Your task to perform on an android device: What's the price of the Vizio TV? Image 0: 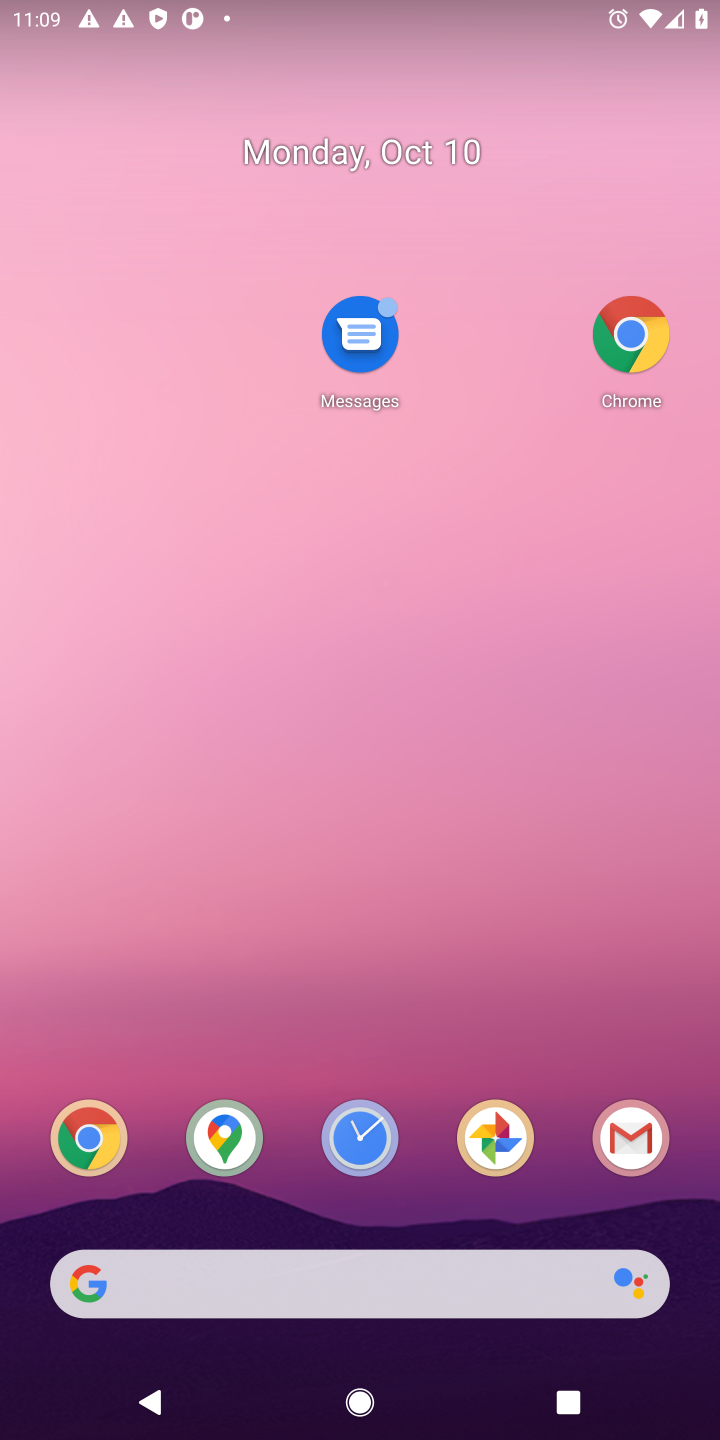
Step 0: click (636, 323)
Your task to perform on an android device: What's the price of the Vizio TV? Image 1: 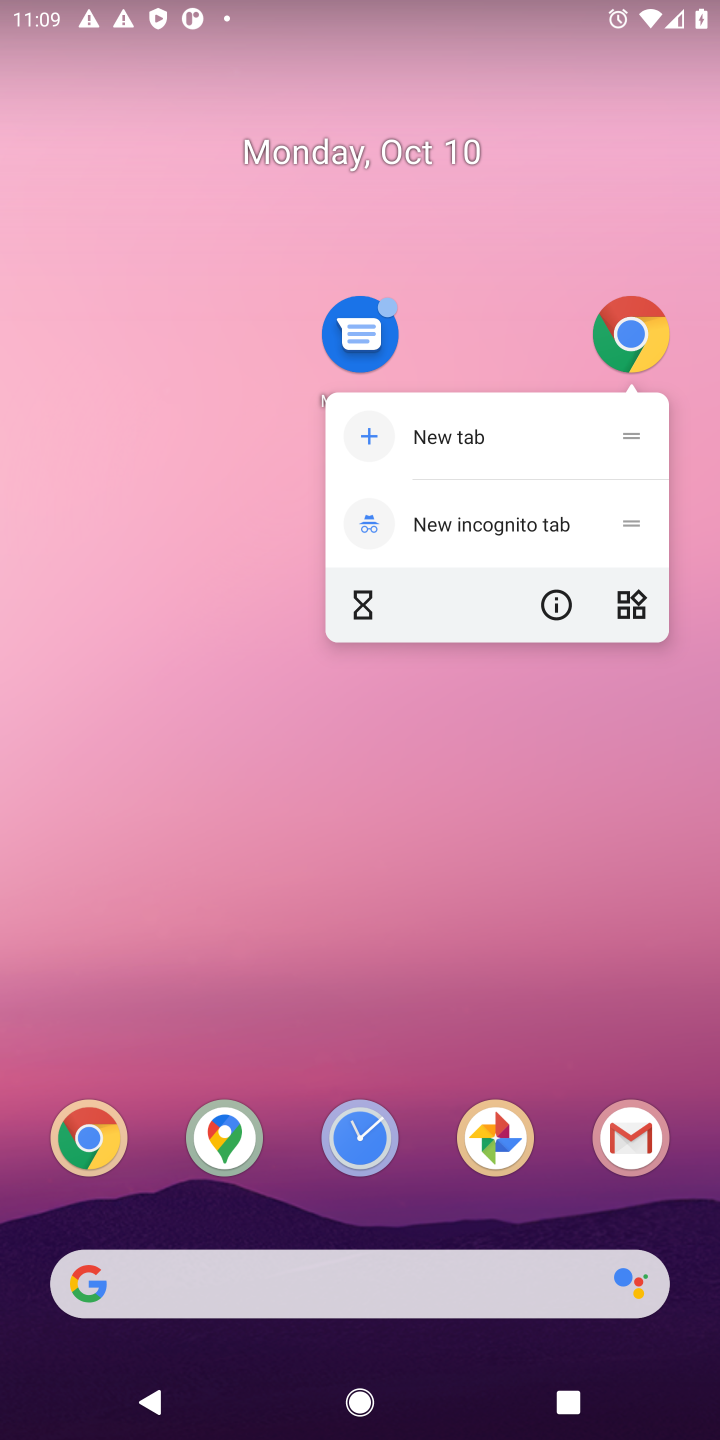
Step 1: click (634, 339)
Your task to perform on an android device: What's the price of the Vizio TV? Image 2: 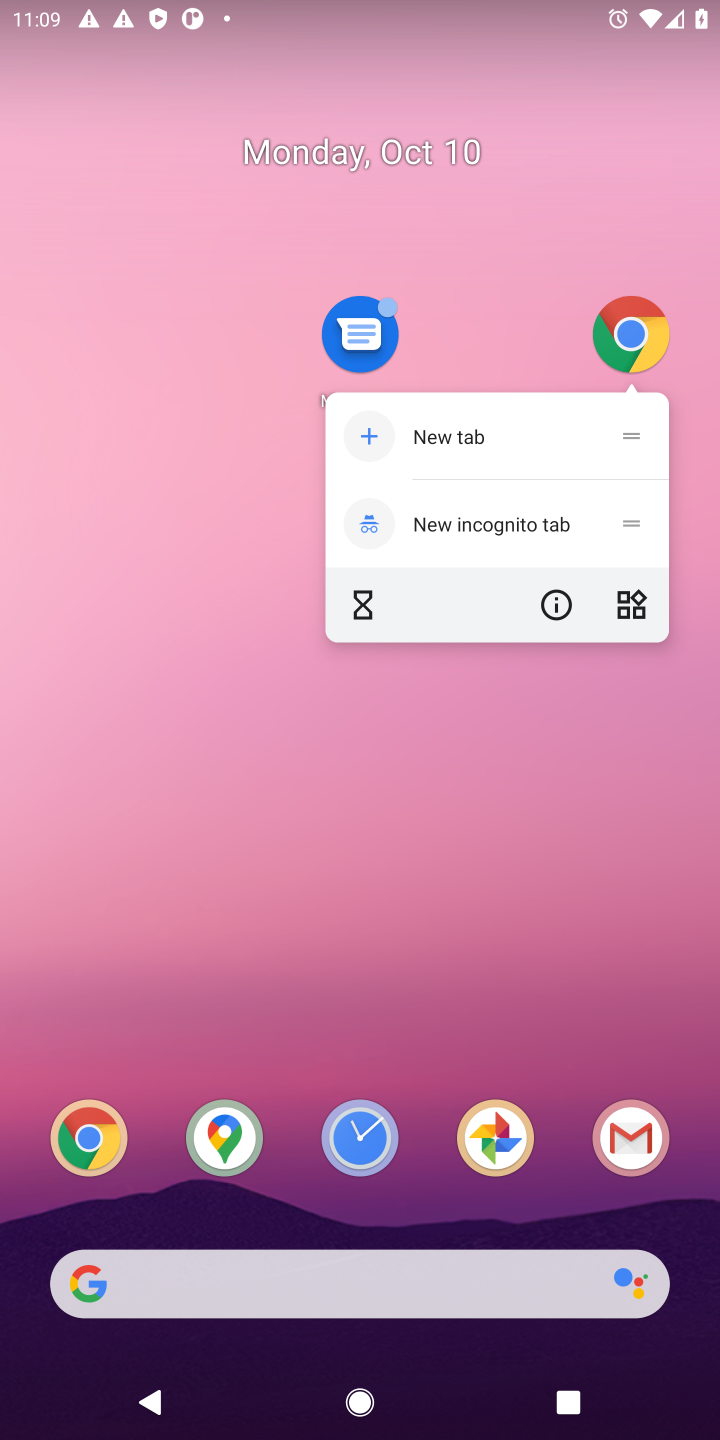
Step 2: click (644, 337)
Your task to perform on an android device: What's the price of the Vizio TV? Image 3: 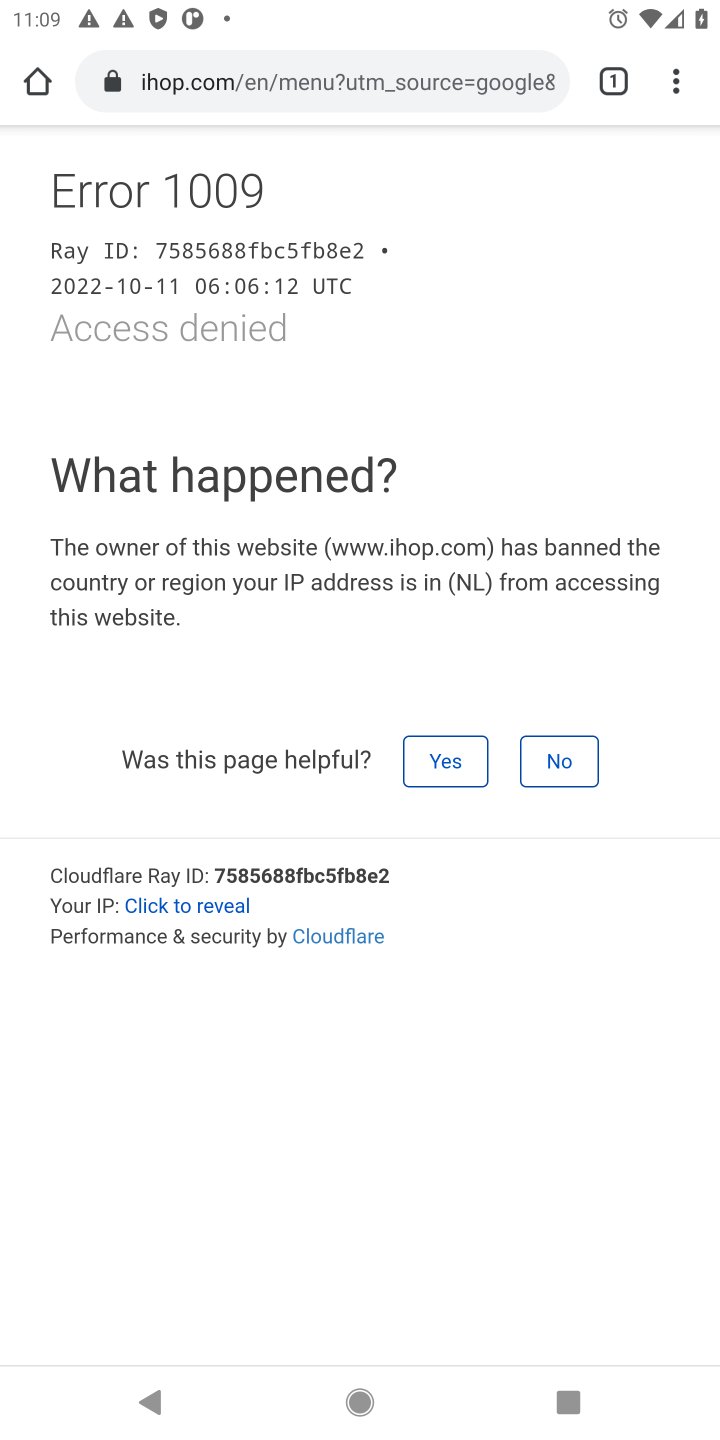
Step 3: click (265, 79)
Your task to perform on an android device: What's the price of the Vizio TV? Image 4: 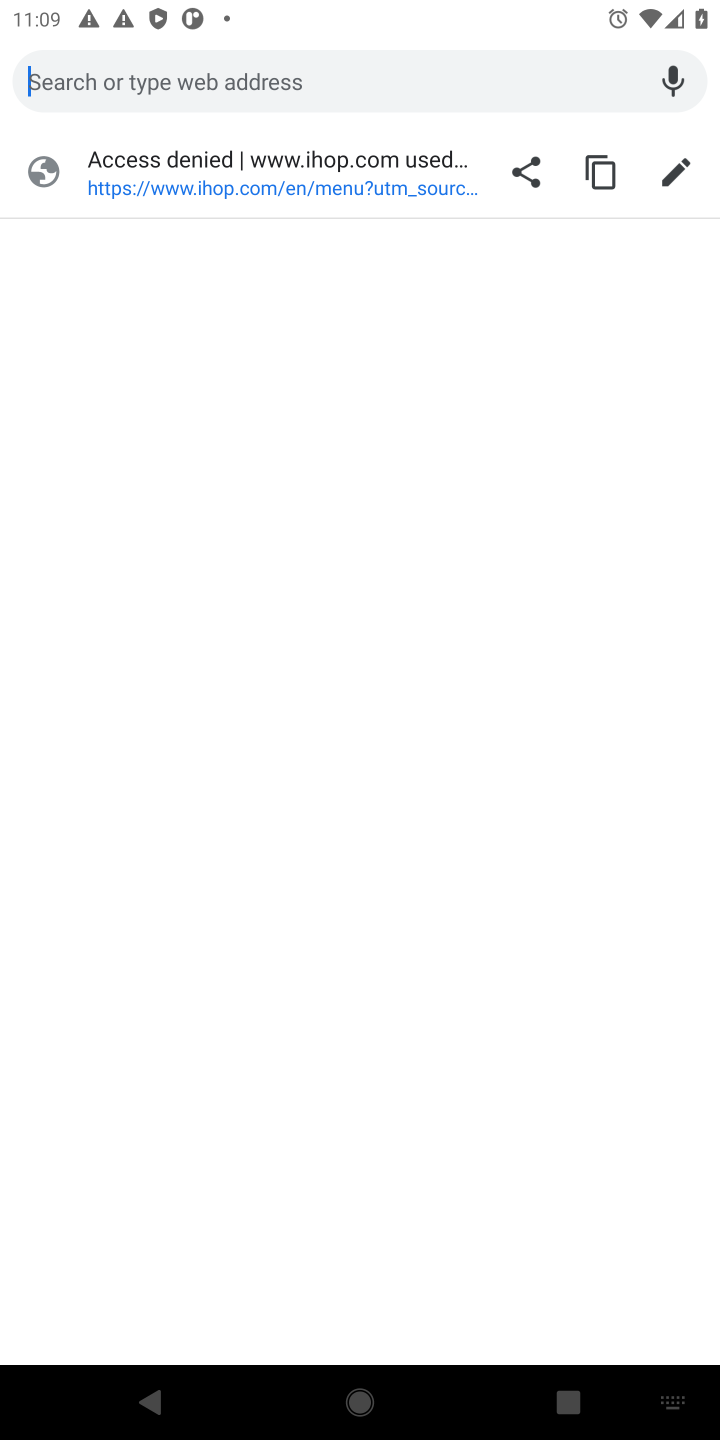
Step 4: type "vizio tv"
Your task to perform on an android device: What's the price of the Vizio TV? Image 5: 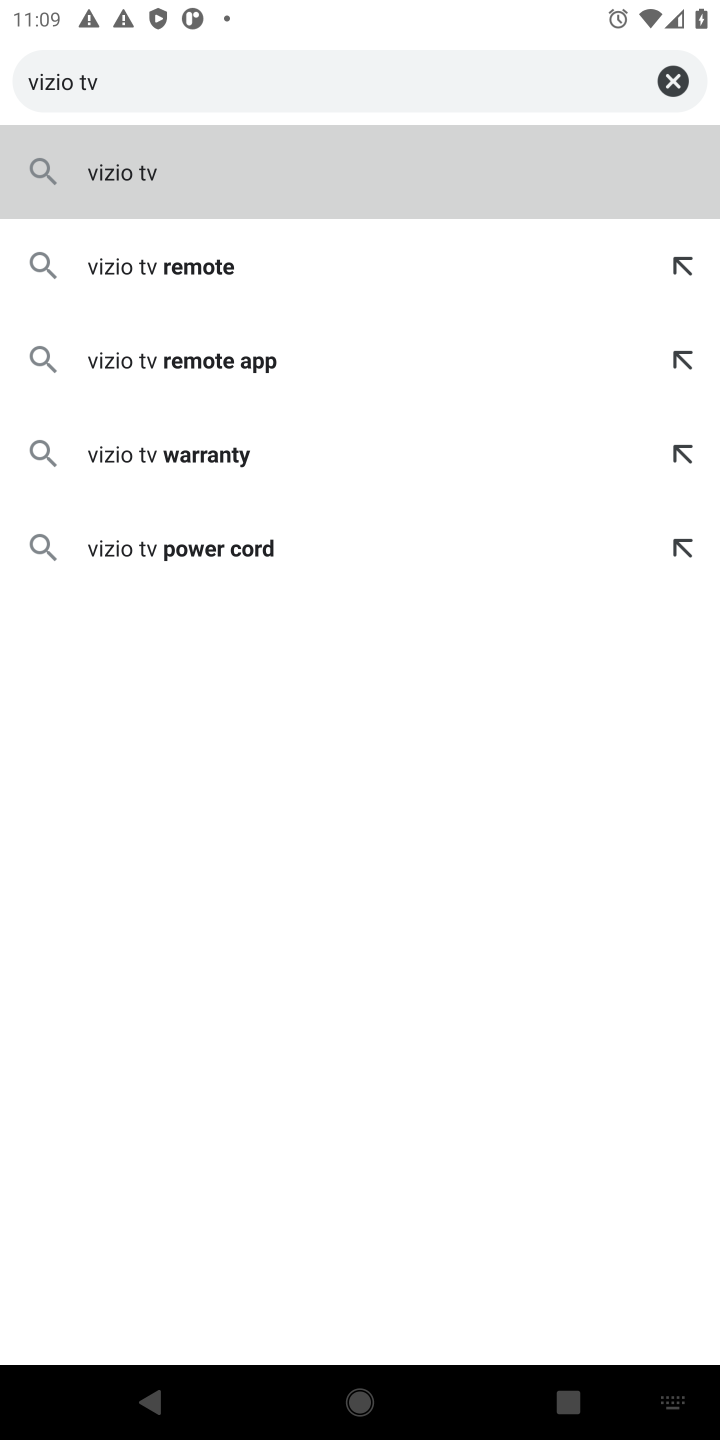
Step 5: press enter
Your task to perform on an android device: What's the price of the Vizio TV? Image 6: 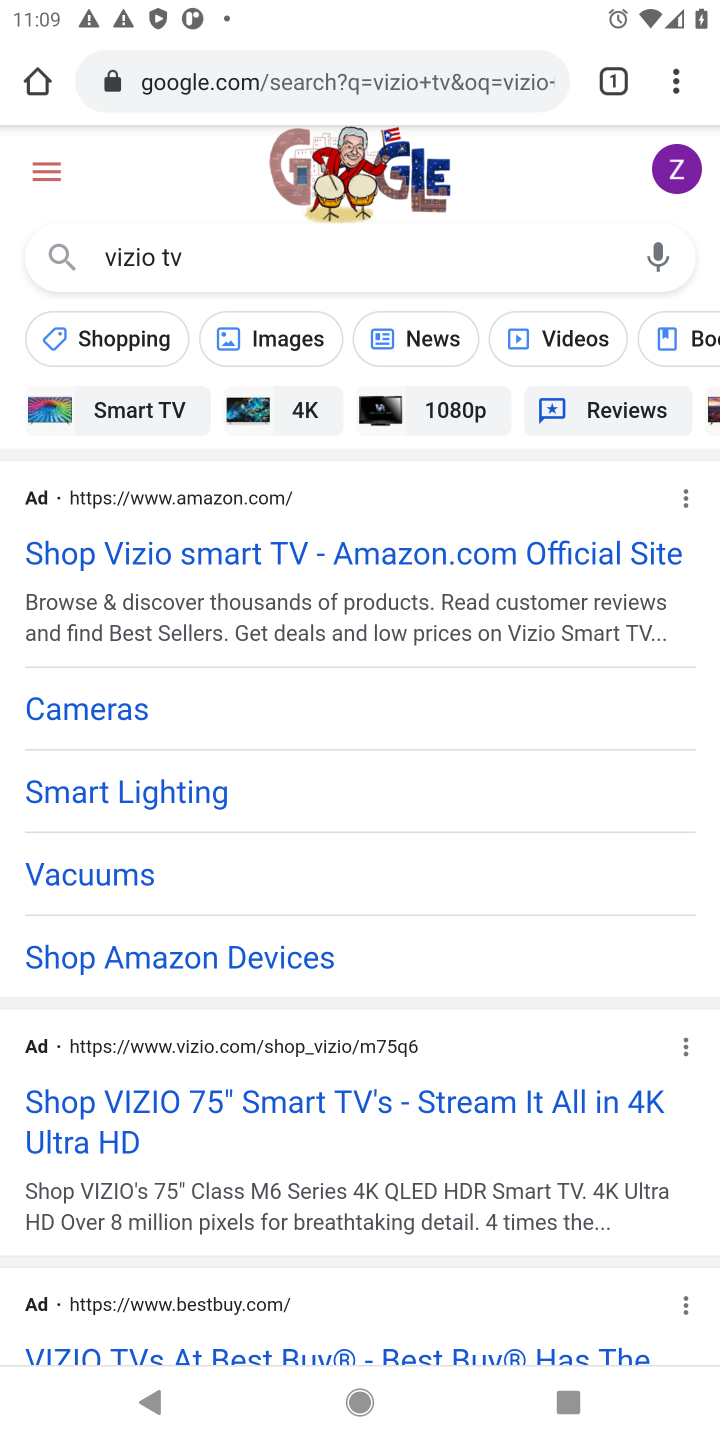
Step 6: click (441, 558)
Your task to perform on an android device: What's the price of the Vizio TV? Image 7: 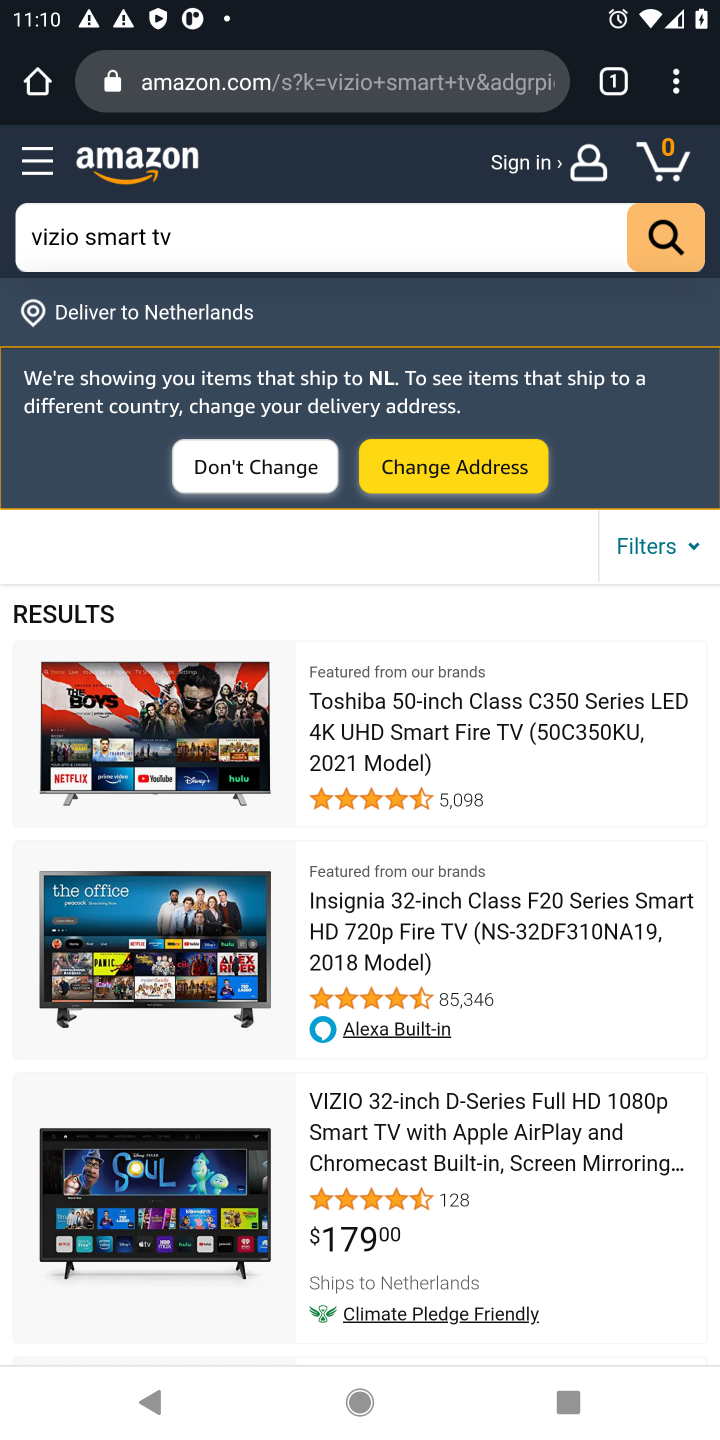
Step 7: click (328, 700)
Your task to perform on an android device: What's the price of the Vizio TV? Image 8: 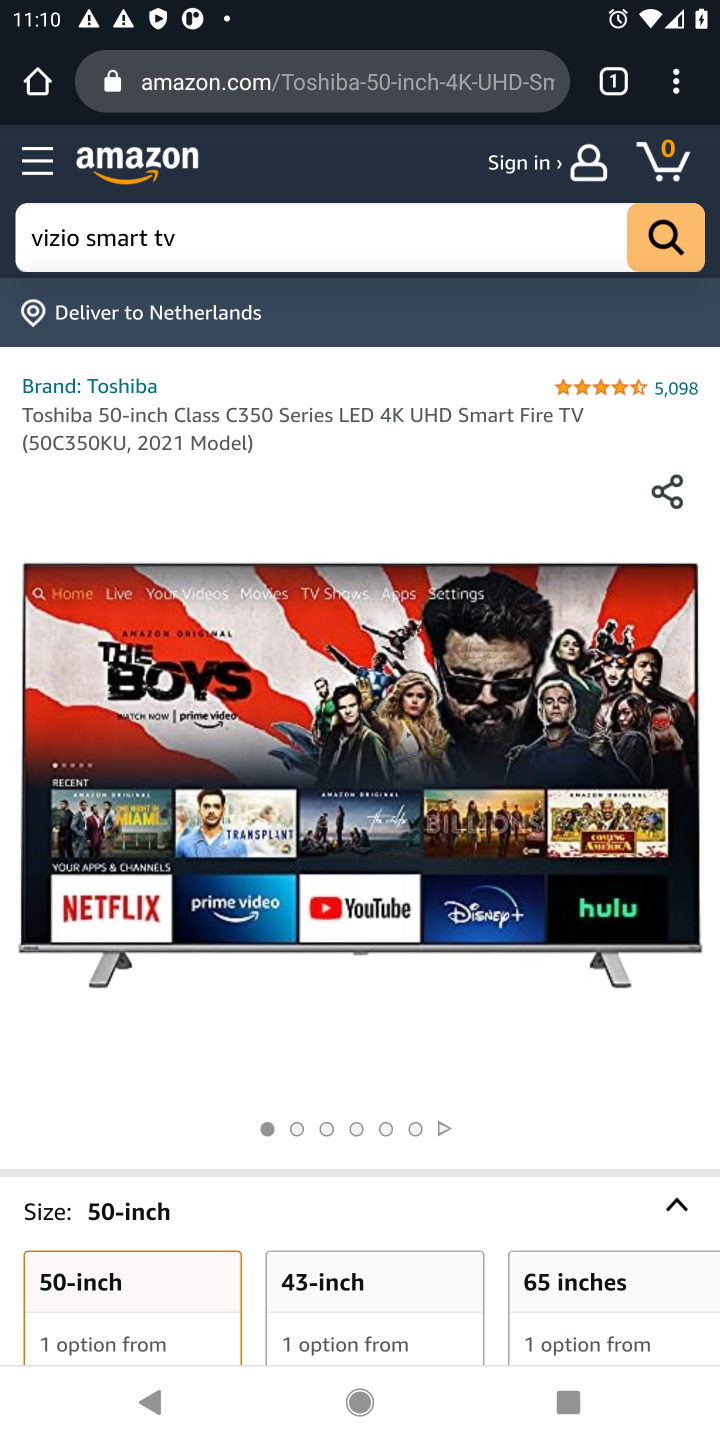
Step 8: press back button
Your task to perform on an android device: What's the price of the Vizio TV? Image 9: 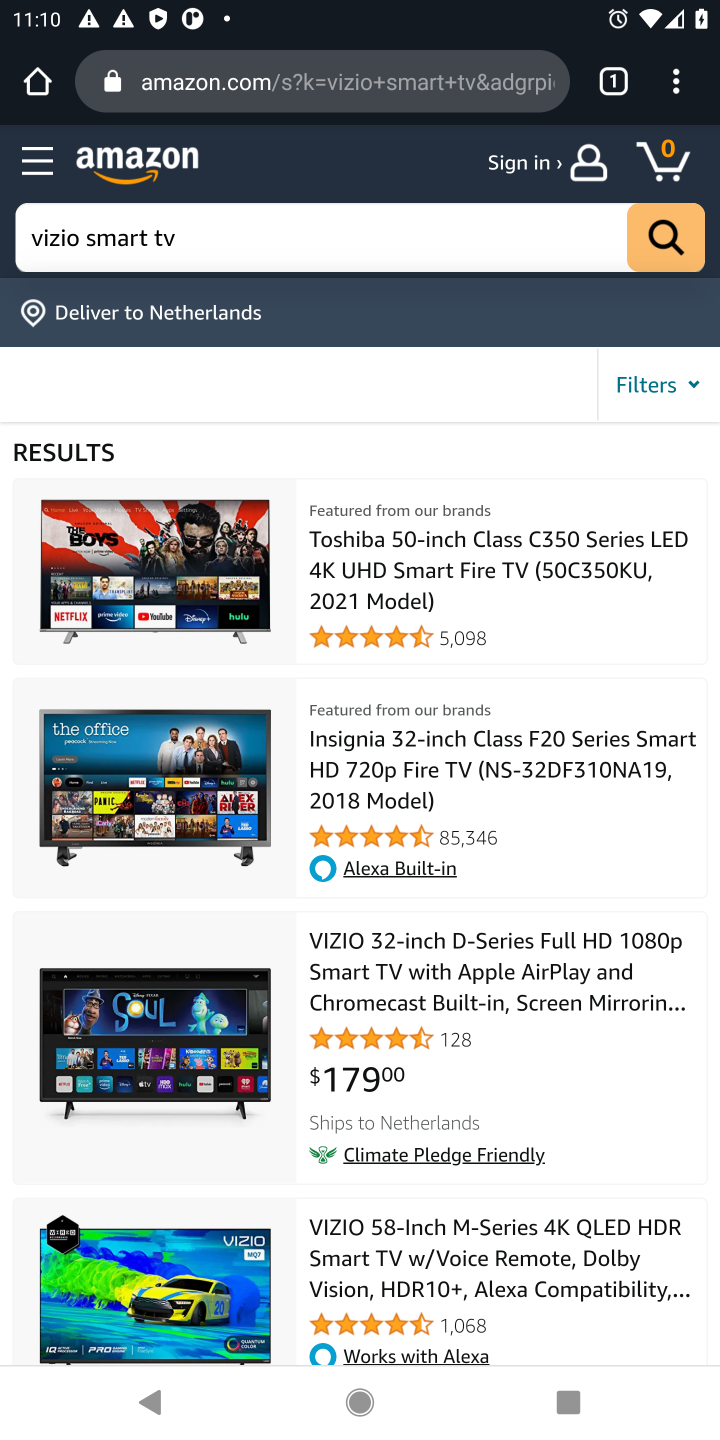
Step 9: press back button
Your task to perform on an android device: What's the price of the Vizio TV? Image 10: 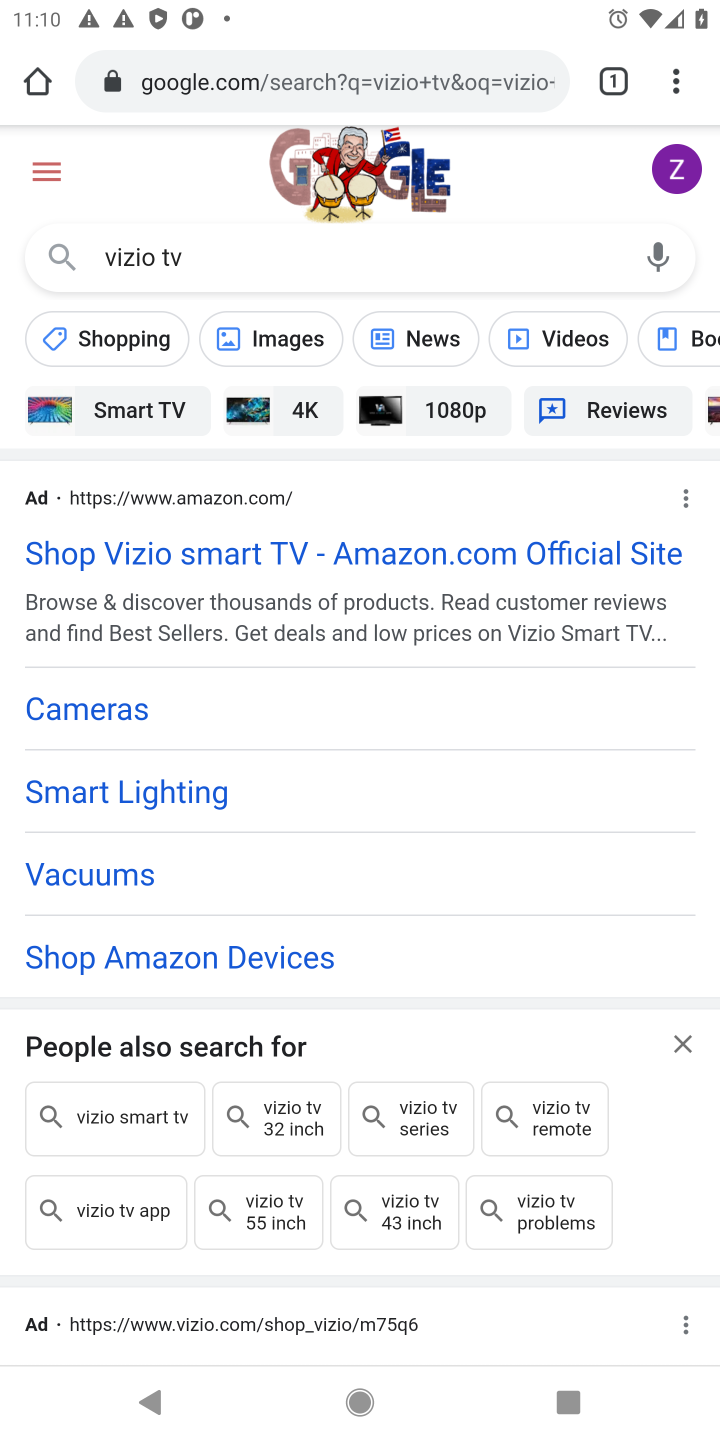
Step 10: drag from (374, 798) to (384, 629)
Your task to perform on an android device: What's the price of the Vizio TV? Image 11: 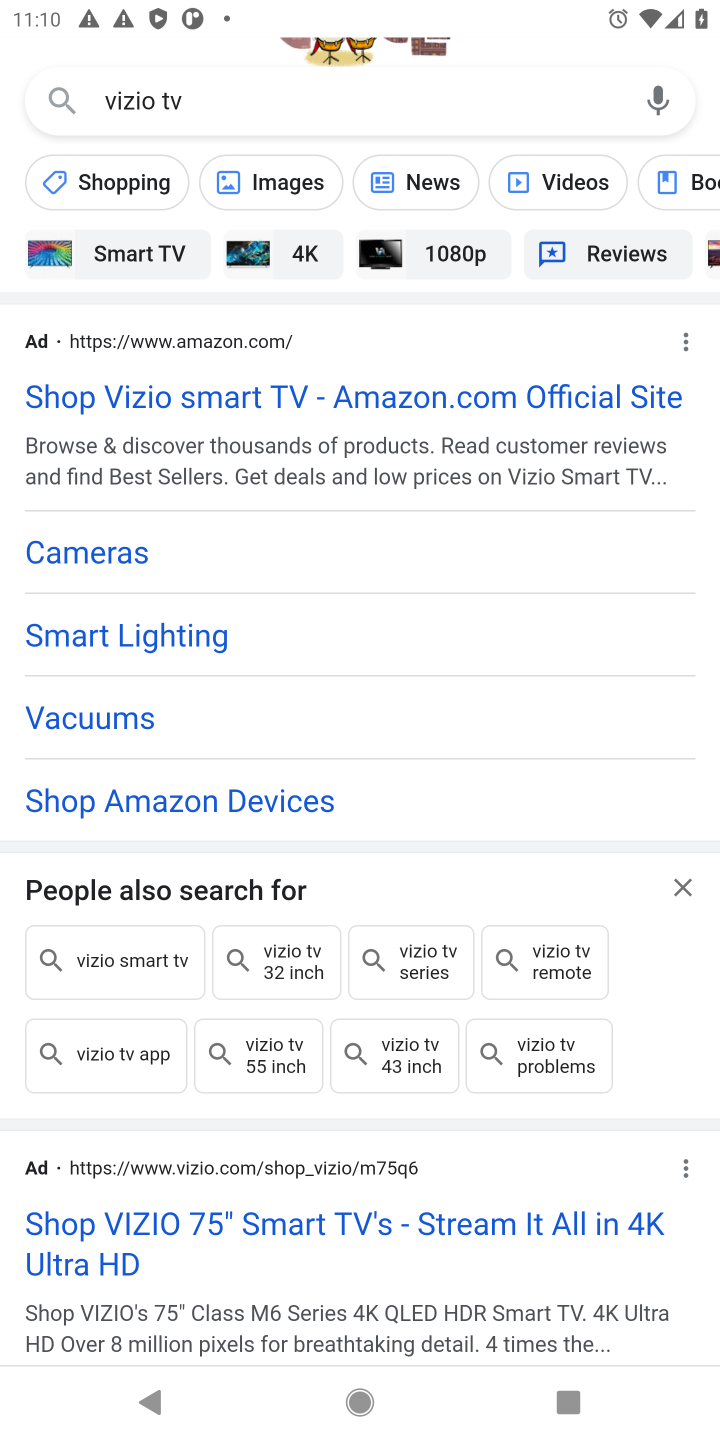
Step 11: click (125, 198)
Your task to perform on an android device: What's the price of the Vizio TV? Image 12: 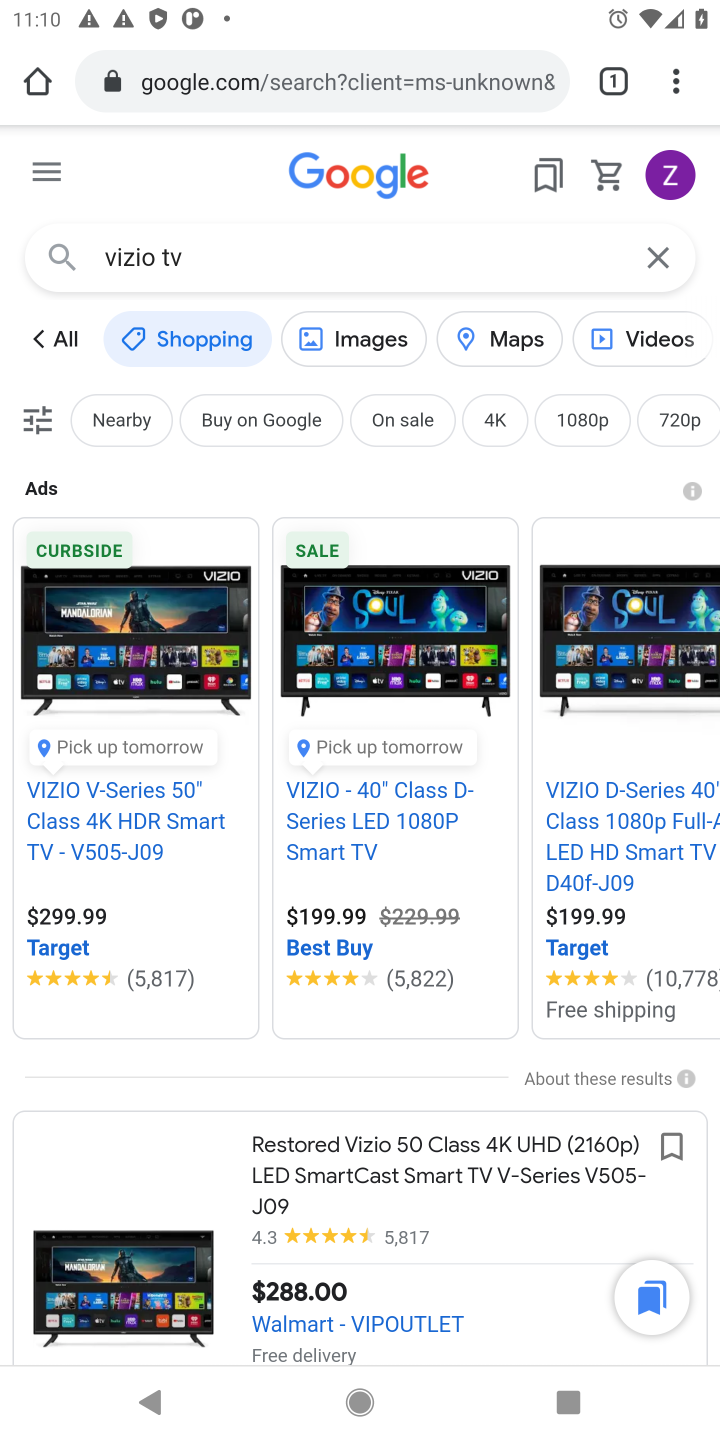
Step 12: task complete